Your task to perform on an android device: When is my next appointment? Image 0: 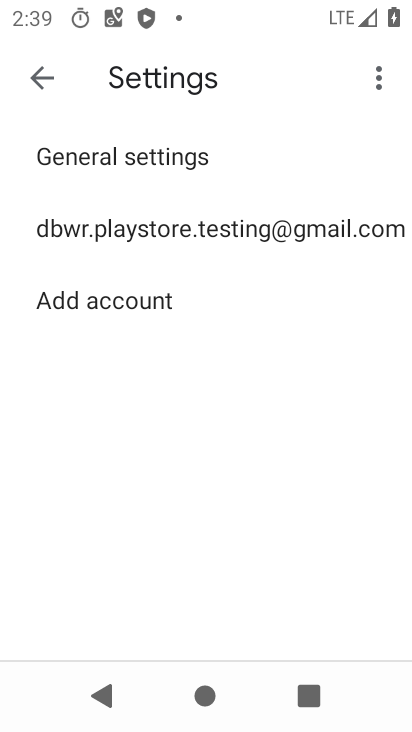
Step 0: press home button
Your task to perform on an android device: When is my next appointment? Image 1: 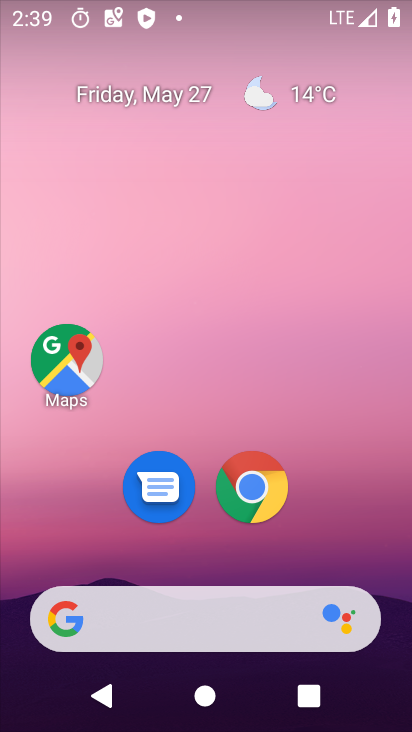
Step 1: drag from (348, 501) to (311, 156)
Your task to perform on an android device: When is my next appointment? Image 2: 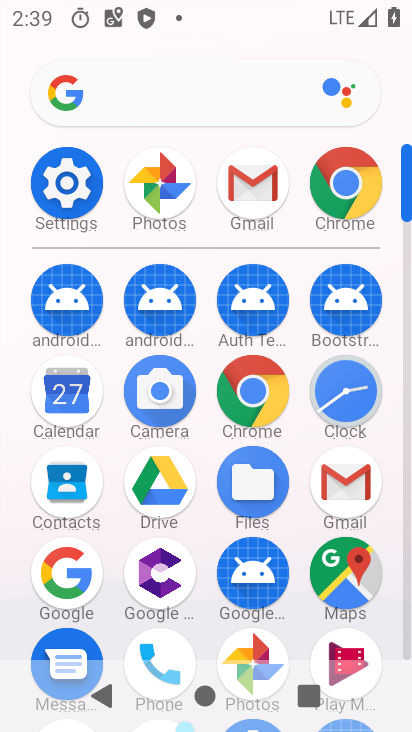
Step 2: click (88, 413)
Your task to perform on an android device: When is my next appointment? Image 3: 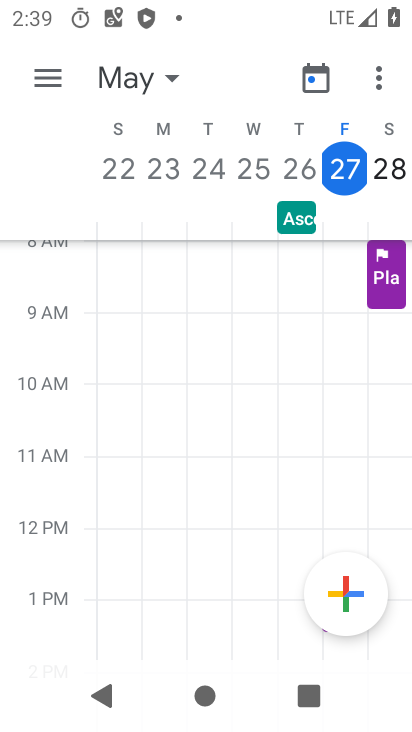
Step 3: task complete